Your task to perform on an android device: View the shopping cart on amazon.com. Add "jbl charge 4" to the cart on amazon.com Image 0: 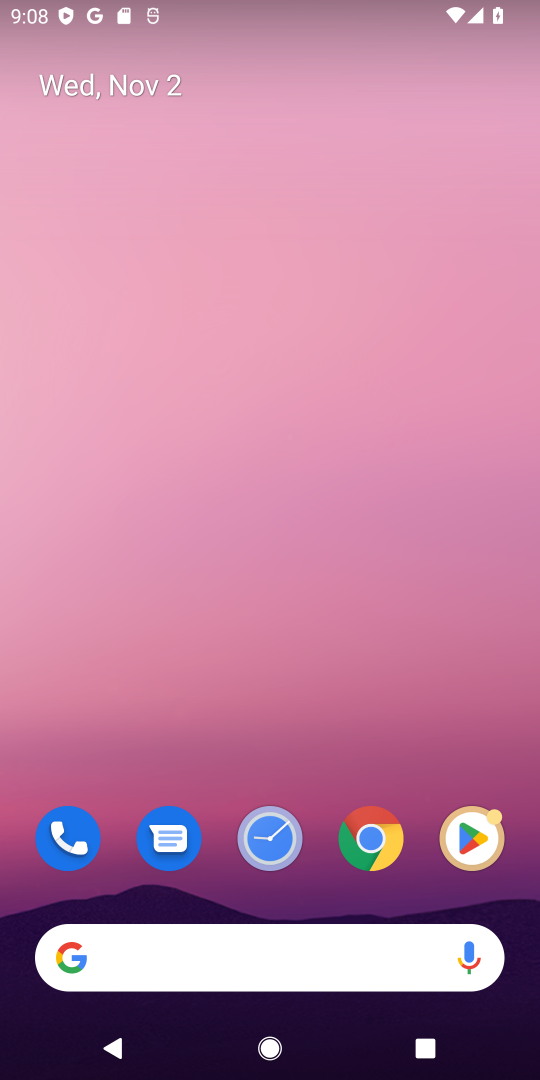
Step 0: task complete